Your task to perform on an android device: Go to Google Image 0: 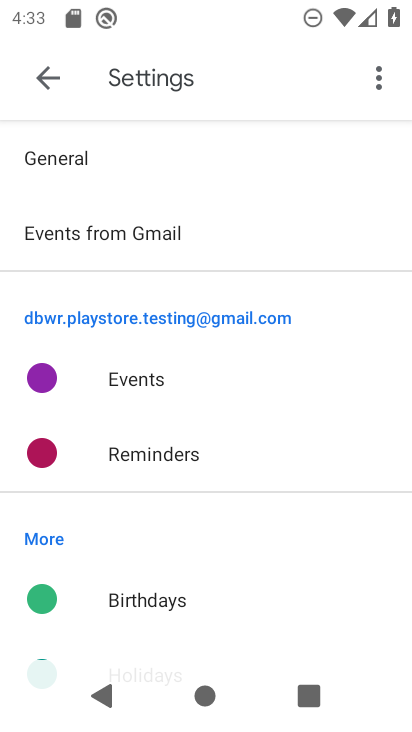
Step 0: press back button
Your task to perform on an android device: Go to Google Image 1: 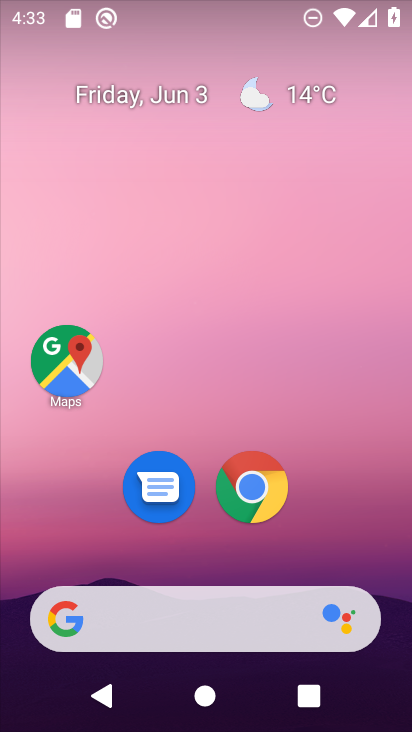
Step 1: drag from (180, 519) to (242, 45)
Your task to perform on an android device: Go to Google Image 2: 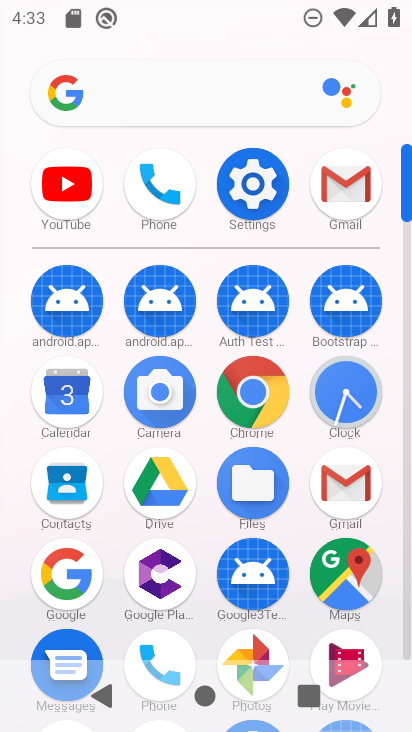
Step 2: click (64, 572)
Your task to perform on an android device: Go to Google Image 3: 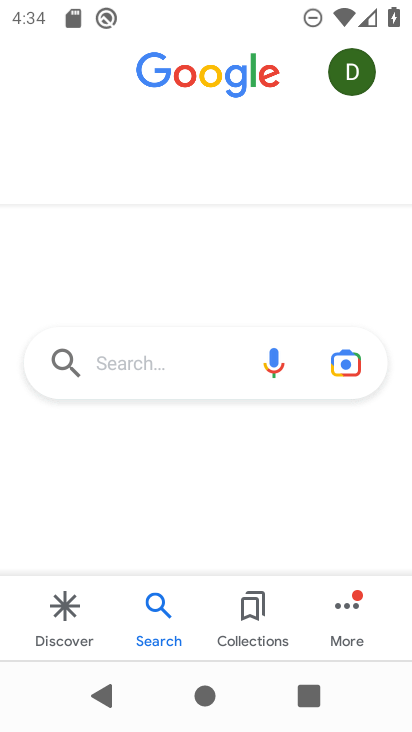
Step 3: task complete